Your task to perform on an android device: What's on my calendar today? Image 0: 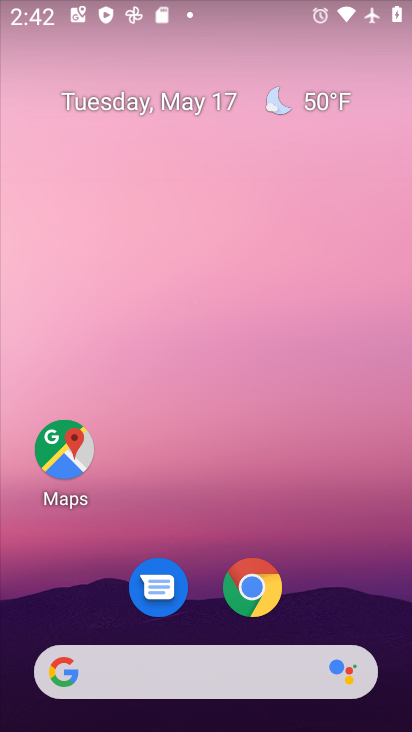
Step 0: drag from (341, 629) to (313, 218)
Your task to perform on an android device: What's on my calendar today? Image 1: 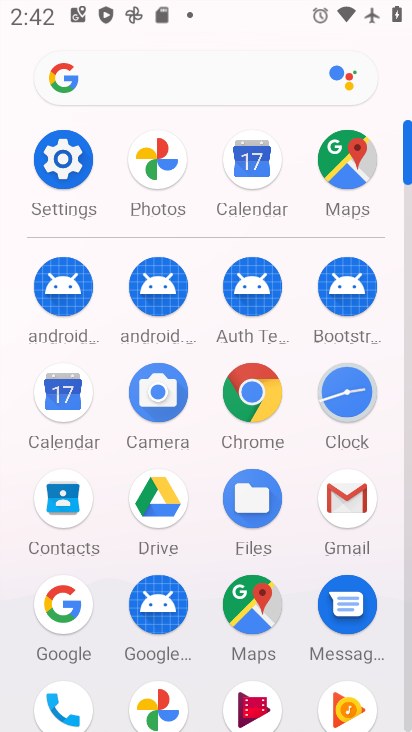
Step 1: click (47, 433)
Your task to perform on an android device: What's on my calendar today? Image 2: 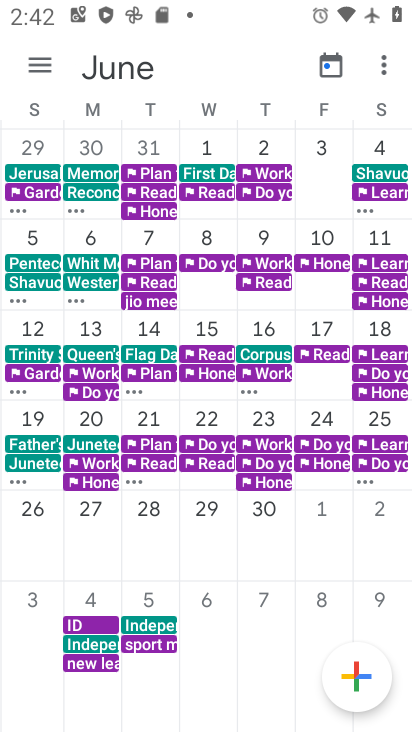
Step 2: task complete